Your task to perform on an android device: set the stopwatch Image 0: 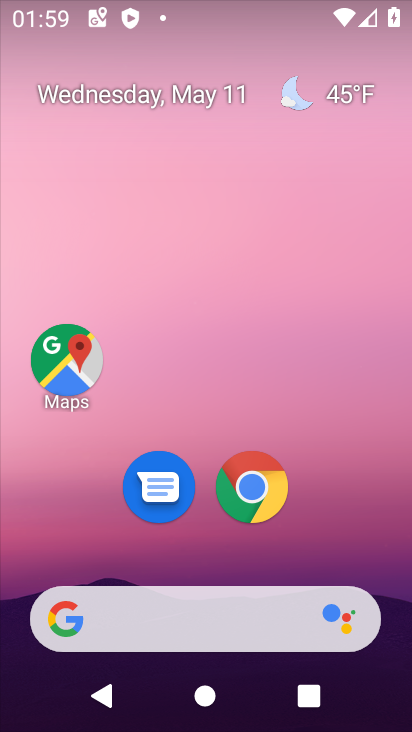
Step 0: drag from (197, 564) to (297, 55)
Your task to perform on an android device: set the stopwatch Image 1: 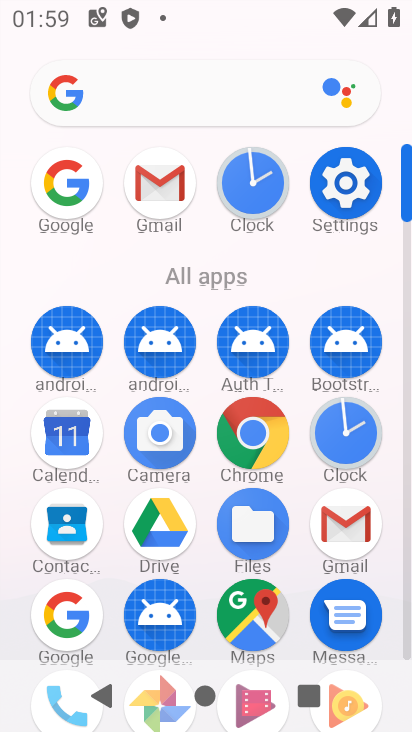
Step 1: click (347, 427)
Your task to perform on an android device: set the stopwatch Image 2: 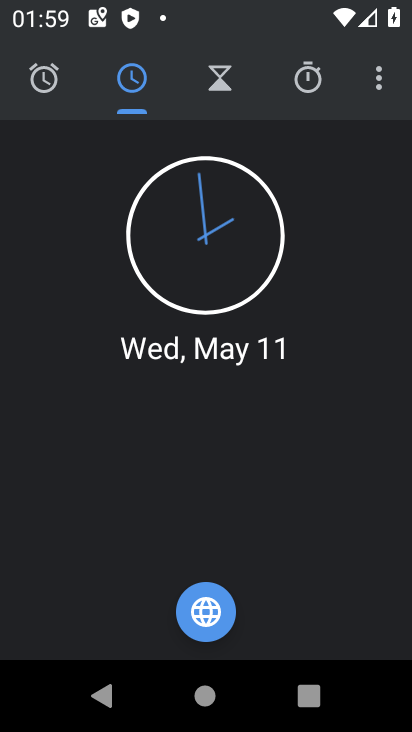
Step 2: click (305, 76)
Your task to perform on an android device: set the stopwatch Image 3: 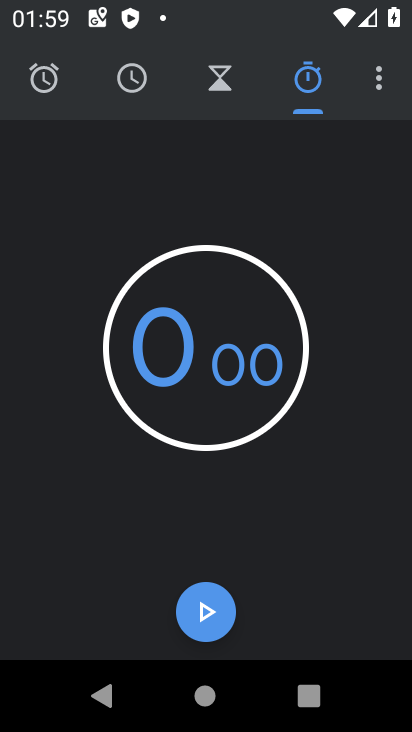
Step 3: click (305, 76)
Your task to perform on an android device: set the stopwatch Image 4: 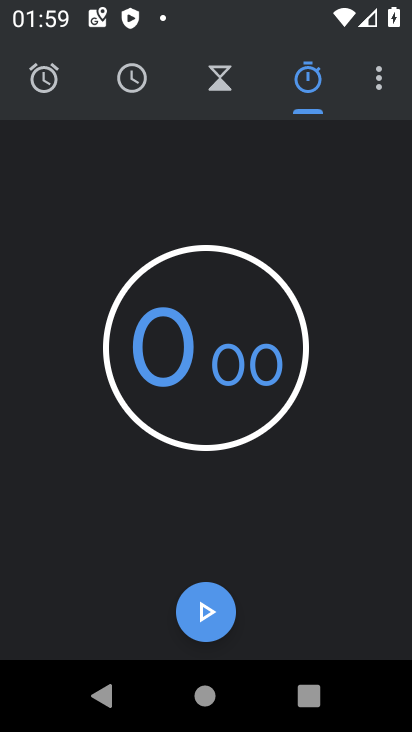
Step 4: click (204, 607)
Your task to perform on an android device: set the stopwatch Image 5: 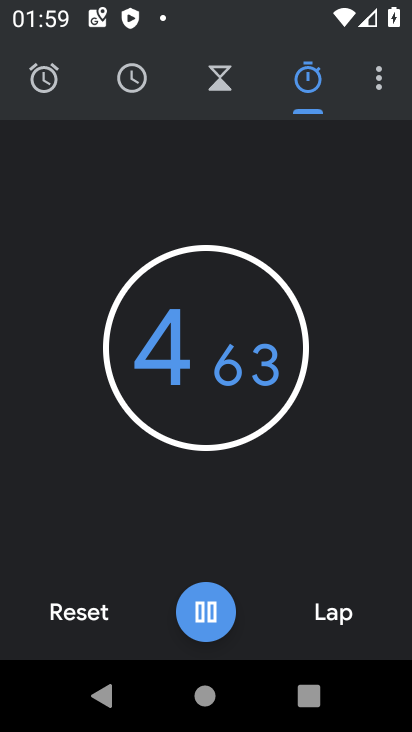
Step 5: click (204, 607)
Your task to perform on an android device: set the stopwatch Image 6: 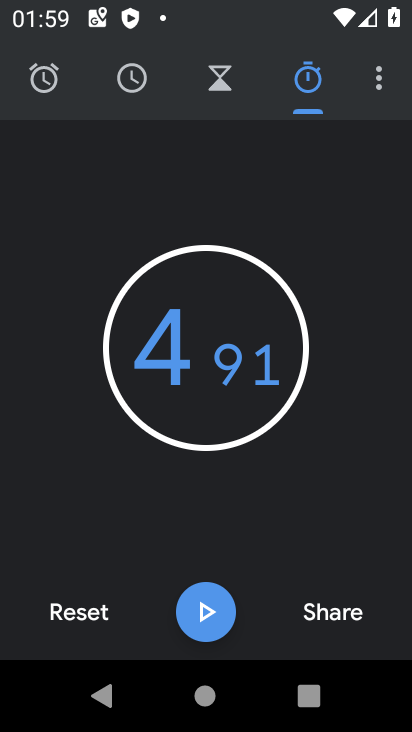
Step 6: task complete